Your task to perform on an android device: change notifications settings Image 0: 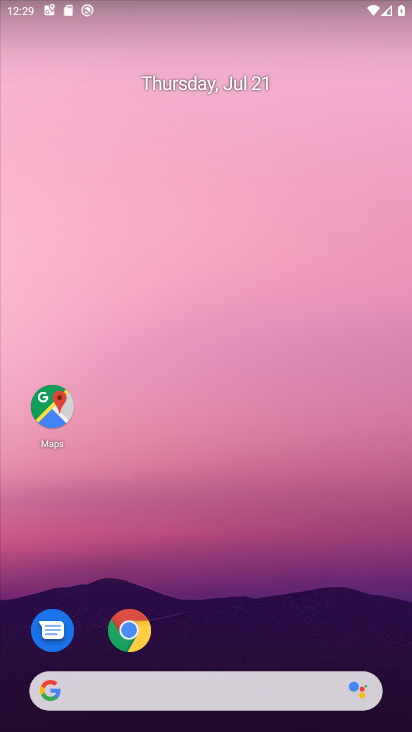
Step 0: drag from (253, 479) to (279, 188)
Your task to perform on an android device: change notifications settings Image 1: 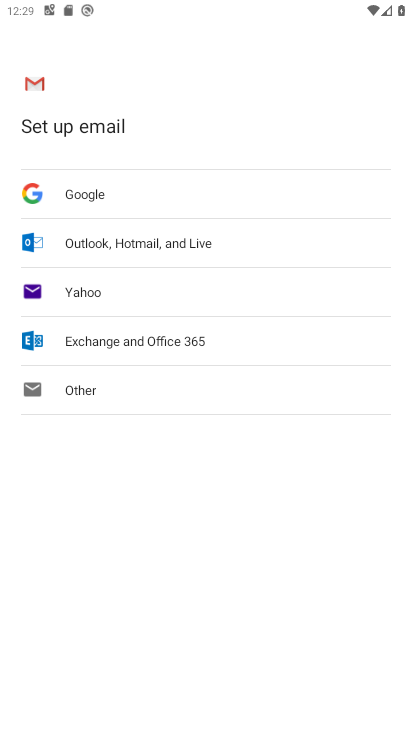
Step 1: press home button
Your task to perform on an android device: change notifications settings Image 2: 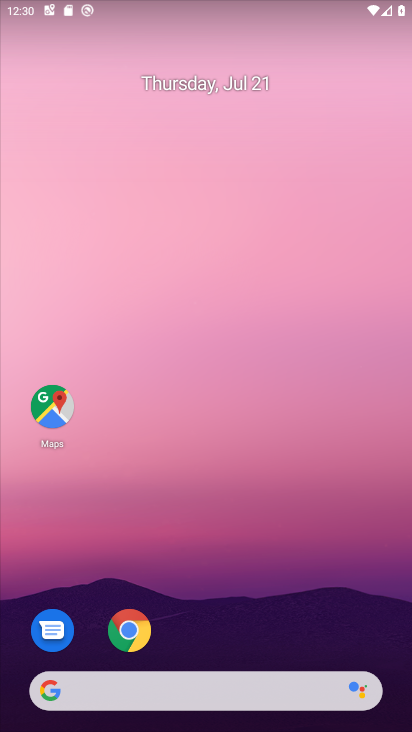
Step 2: drag from (189, 617) to (237, 262)
Your task to perform on an android device: change notifications settings Image 3: 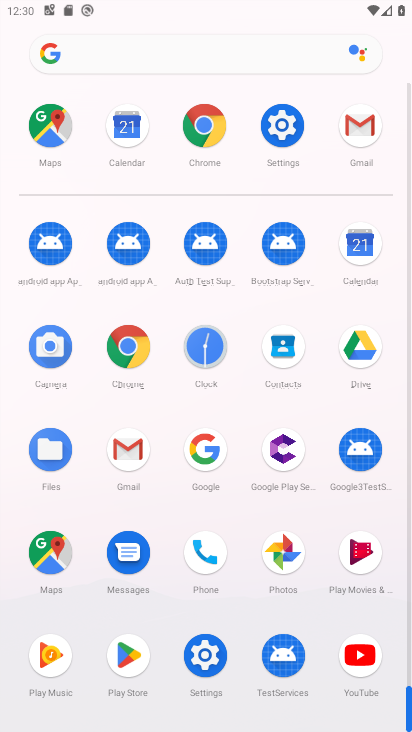
Step 3: click (281, 125)
Your task to perform on an android device: change notifications settings Image 4: 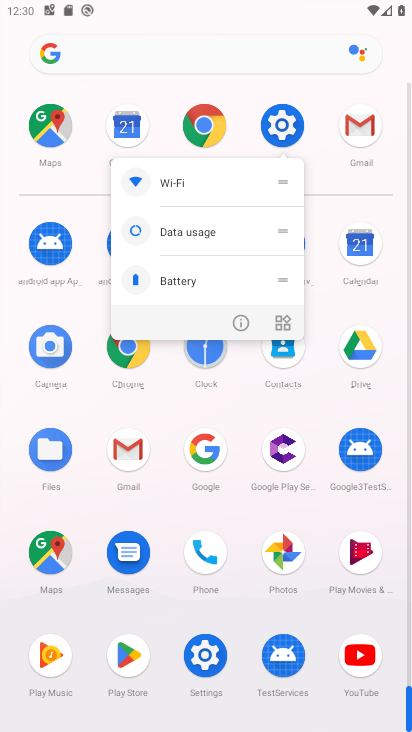
Step 4: click (241, 316)
Your task to perform on an android device: change notifications settings Image 5: 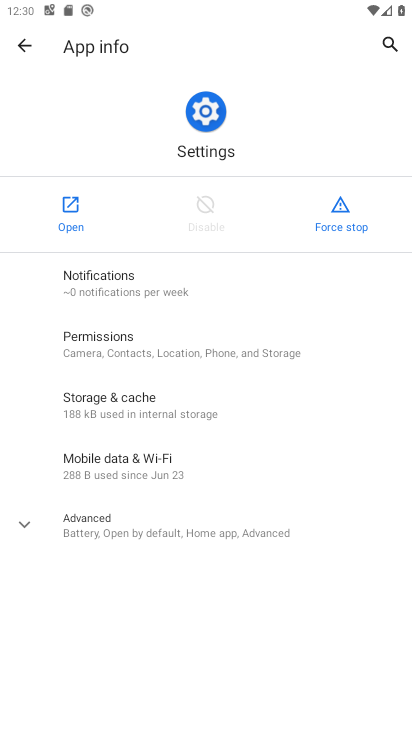
Step 5: click (65, 216)
Your task to perform on an android device: change notifications settings Image 6: 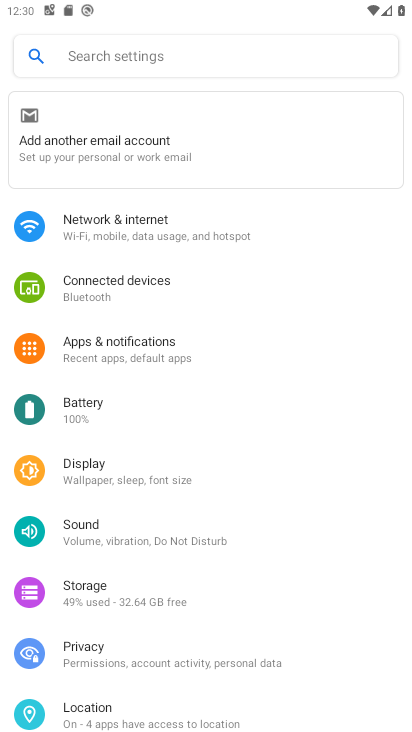
Step 6: click (107, 340)
Your task to perform on an android device: change notifications settings Image 7: 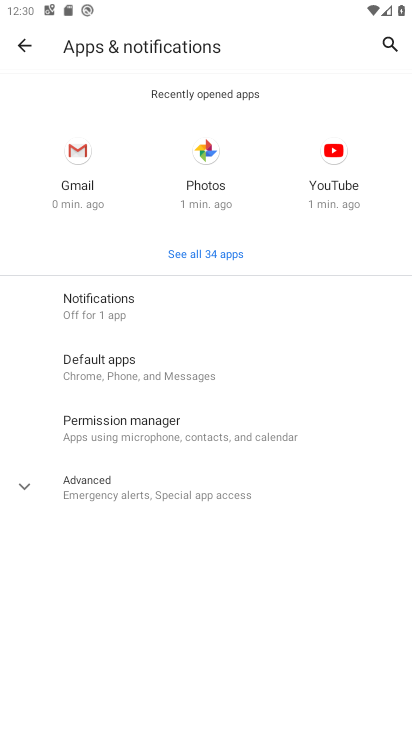
Step 7: click (155, 303)
Your task to perform on an android device: change notifications settings Image 8: 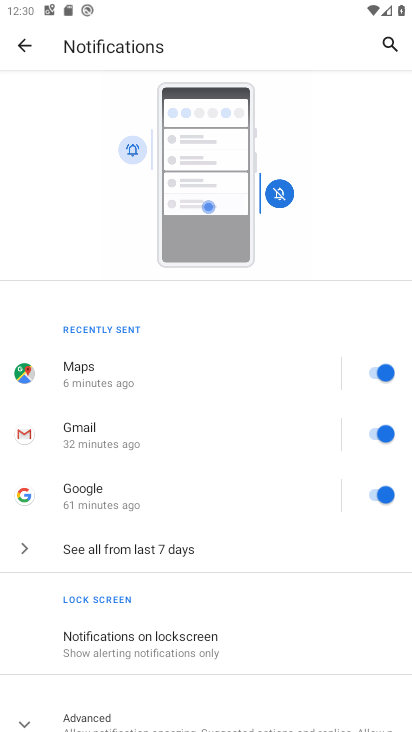
Step 8: drag from (189, 671) to (229, 300)
Your task to perform on an android device: change notifications settings Image 9: 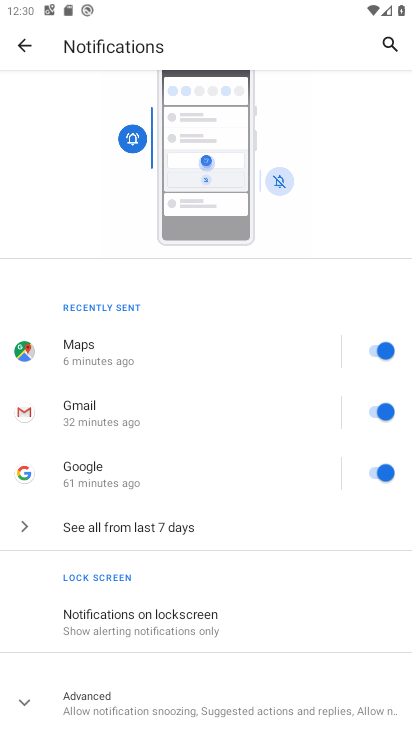
Step 9: click (380, 476)
Your task to perform on an android device: change notifications settings Image 10: 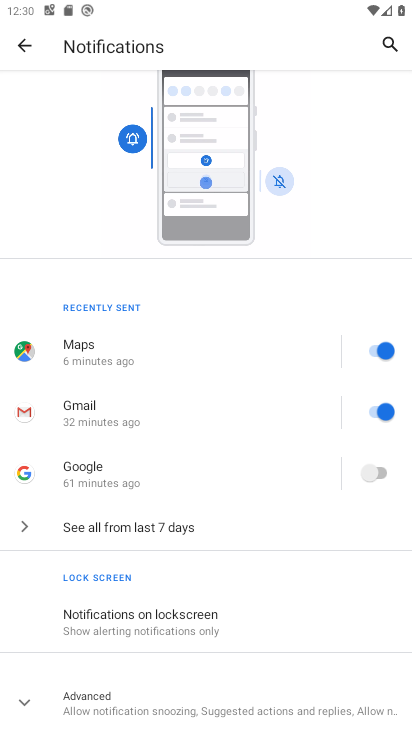
Step 10: task complete